Your task to perform on an android device: Open the stopwatch Image 0: 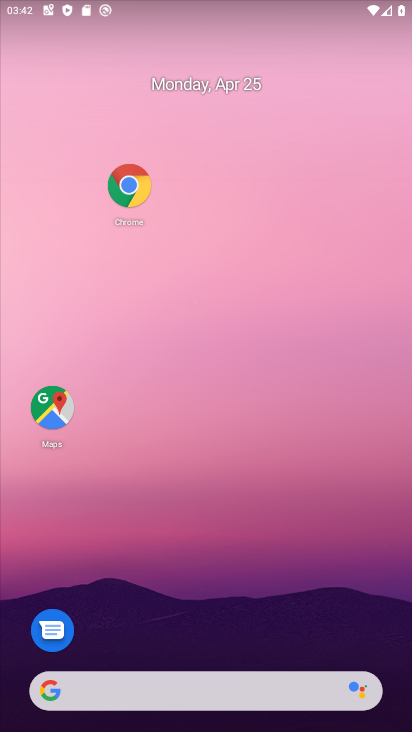
Step 0: drag from (205, 587) to (251, 99)
Your task to perform on an android device: Open the stopwatch Image 1: 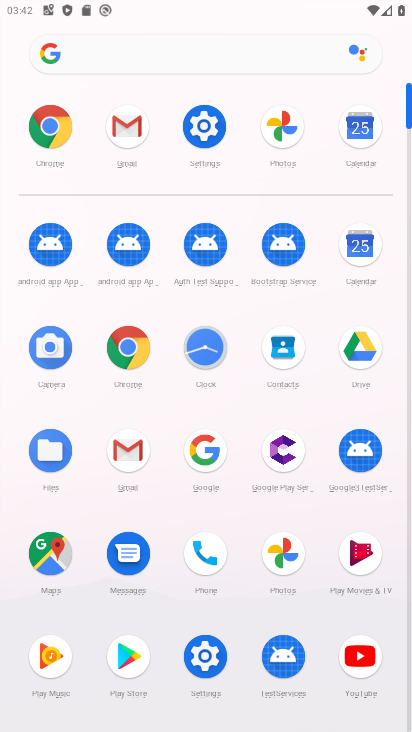
Step 1: click (199, 349)
Your task to perform on an android device: Open the stopwatch Image 2: 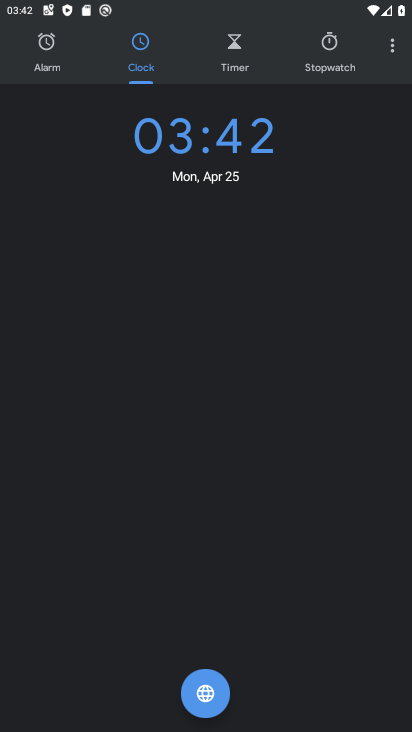
Step 2: click (331, 58)
Your task to perform on an android device: Open the stopwatch Image 3: 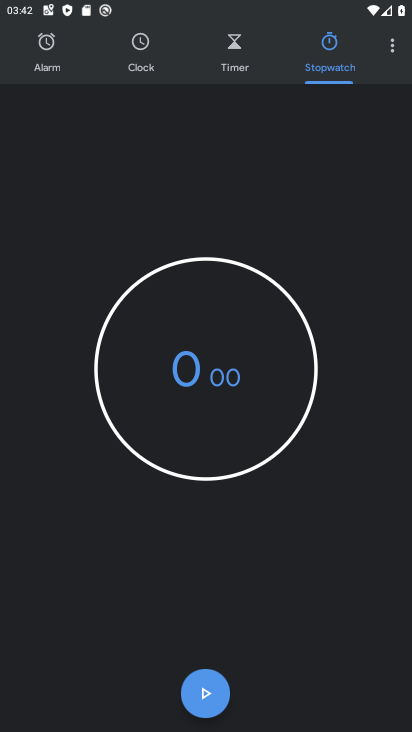
Step 3: task complete